Your task to perform on an android device: open a bookmark in the chrome app Image 0: 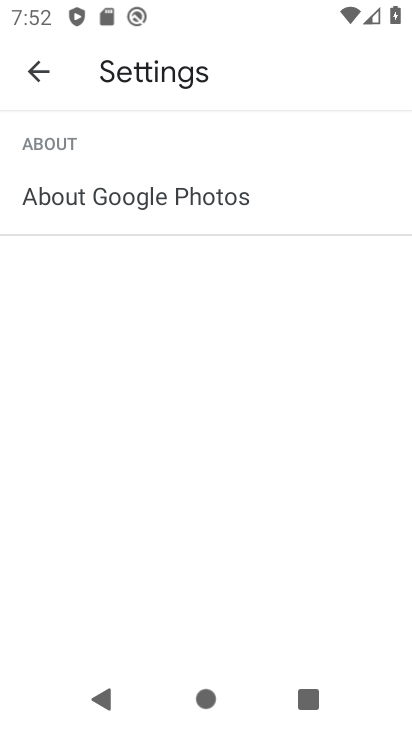
Step 0: press back button
Your task to perform on an android device: open a bookmark in the chrome app Image 1: 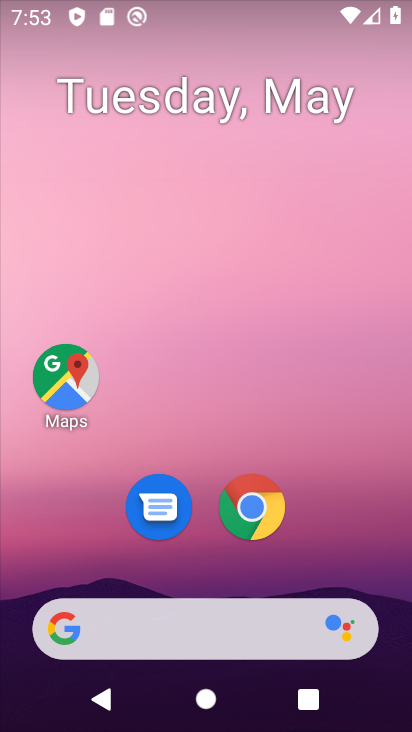
Step 1: drag from (347, 548) to (282, 12)
Your task to perform on an android device: open a bookmark in the chrome app Image 2: 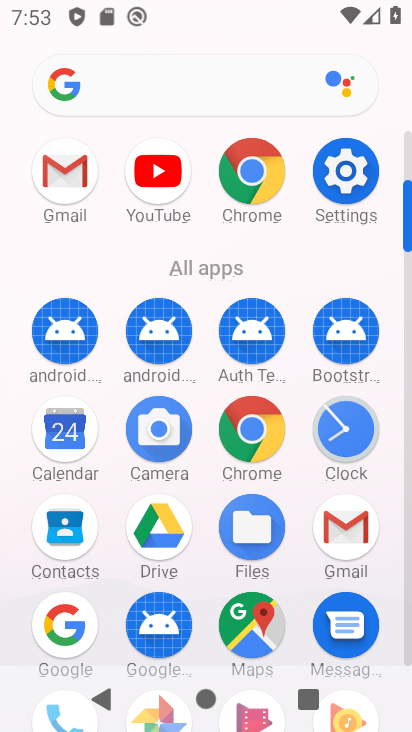
Step 2: drag from (8, 592) to (18, 314)
Your task to perform on an android device: open a bookmark in the chrome app Image 3: 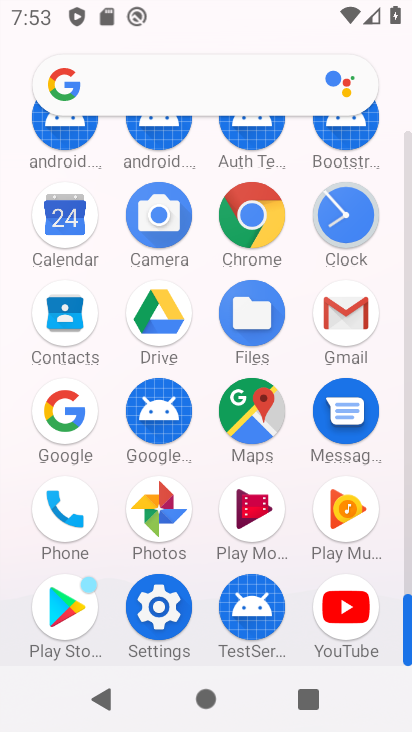
Step 3: click (250, 210)
Your task to perform on an android device: open a bookmark in the chrome app Image 4: 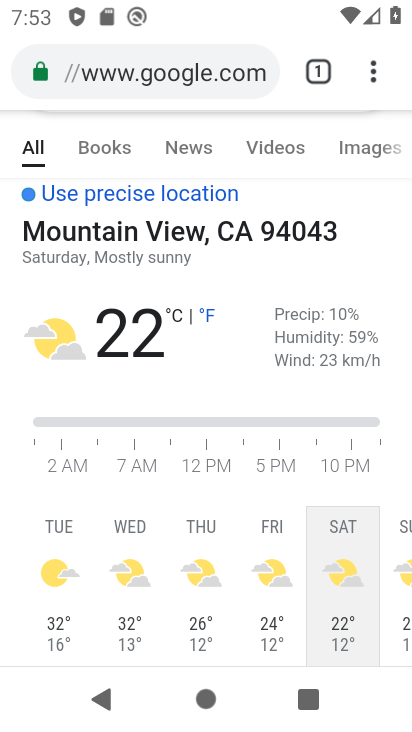
Step 4: drag from (373, 68) to (196, 273)
Your task to perform on an android device: open a bookmark in the chrome app Image 5: 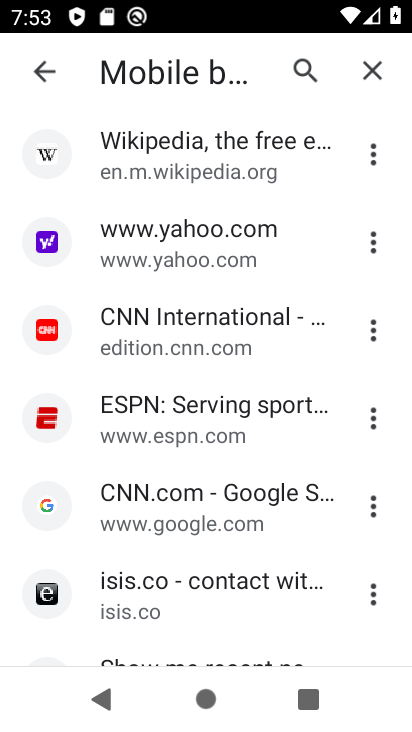
Step 5: drag from (206, 517) to (203, 167)
Your task to perform on an android device: open a bookmark in the chrome app Image 6: 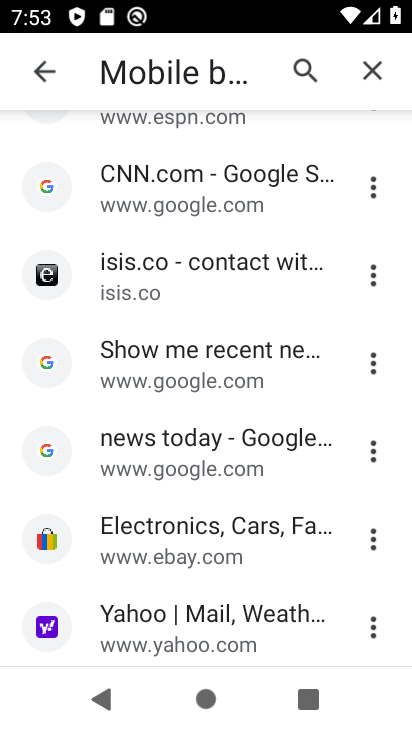
Step 6: click (169, 196)
Your task to perform on an android device: open a bookmark in the chrome app Image 7: 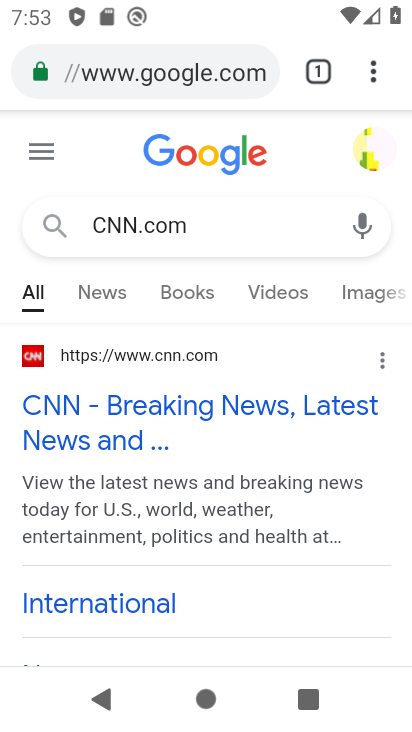
Step 7: task complete